Your task to perform on an android device: Add "usb-a to usb-b" to the cart on costco, then select checkout. Image 0: 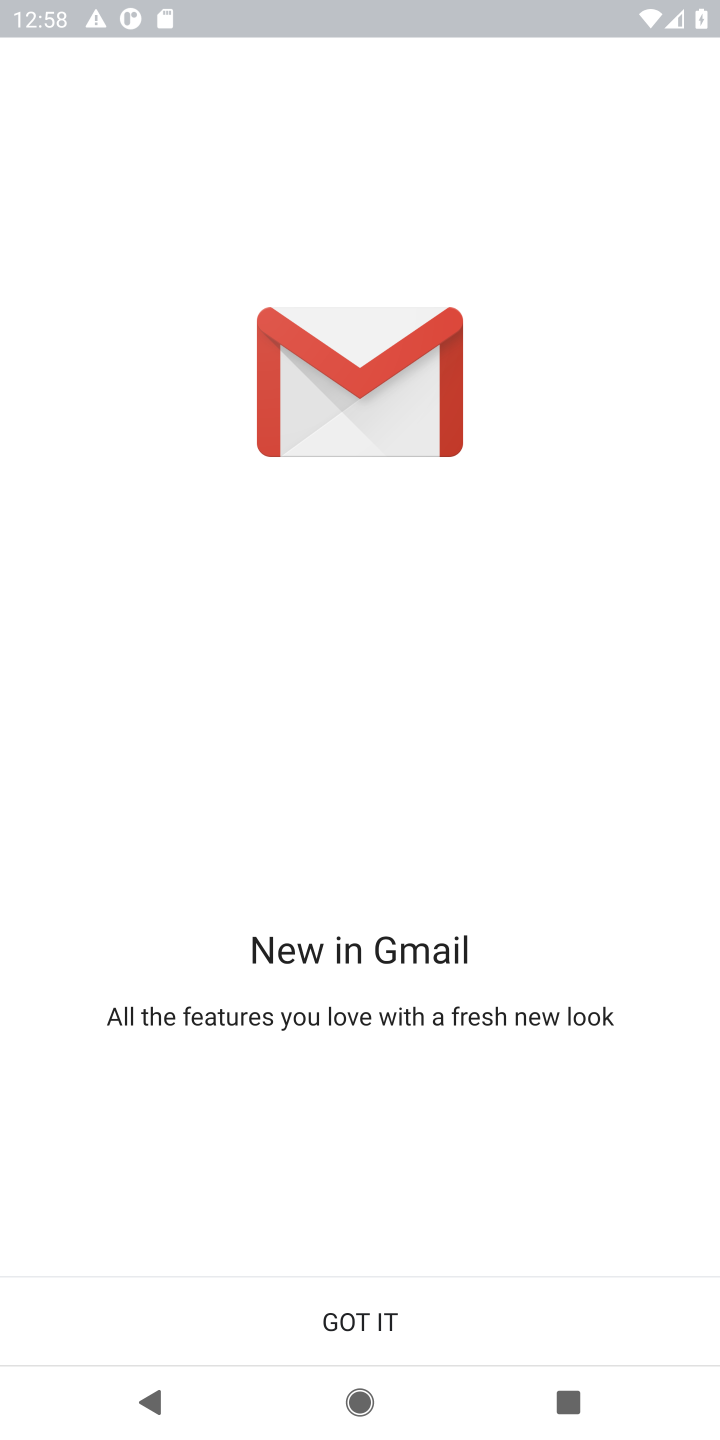
Step 0: press home button
Your task to perform on an android device: Add "usb-a to usb-b" to the cart on costco, then select checkout. Image 1: 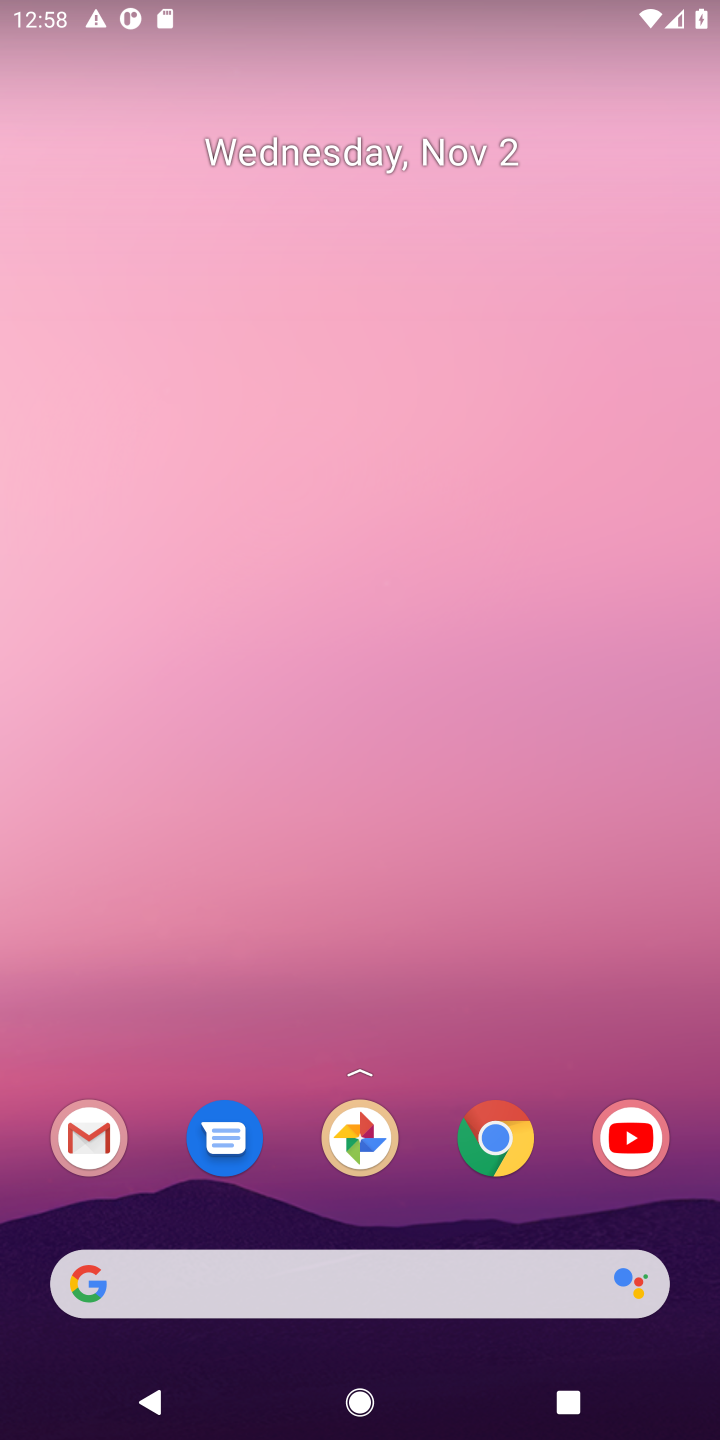
Step 1: click (488, 1119)
Your task to perform on an android device: Add "usb-a to usb-b" to the cart on costco, then select checkout. Image 2: 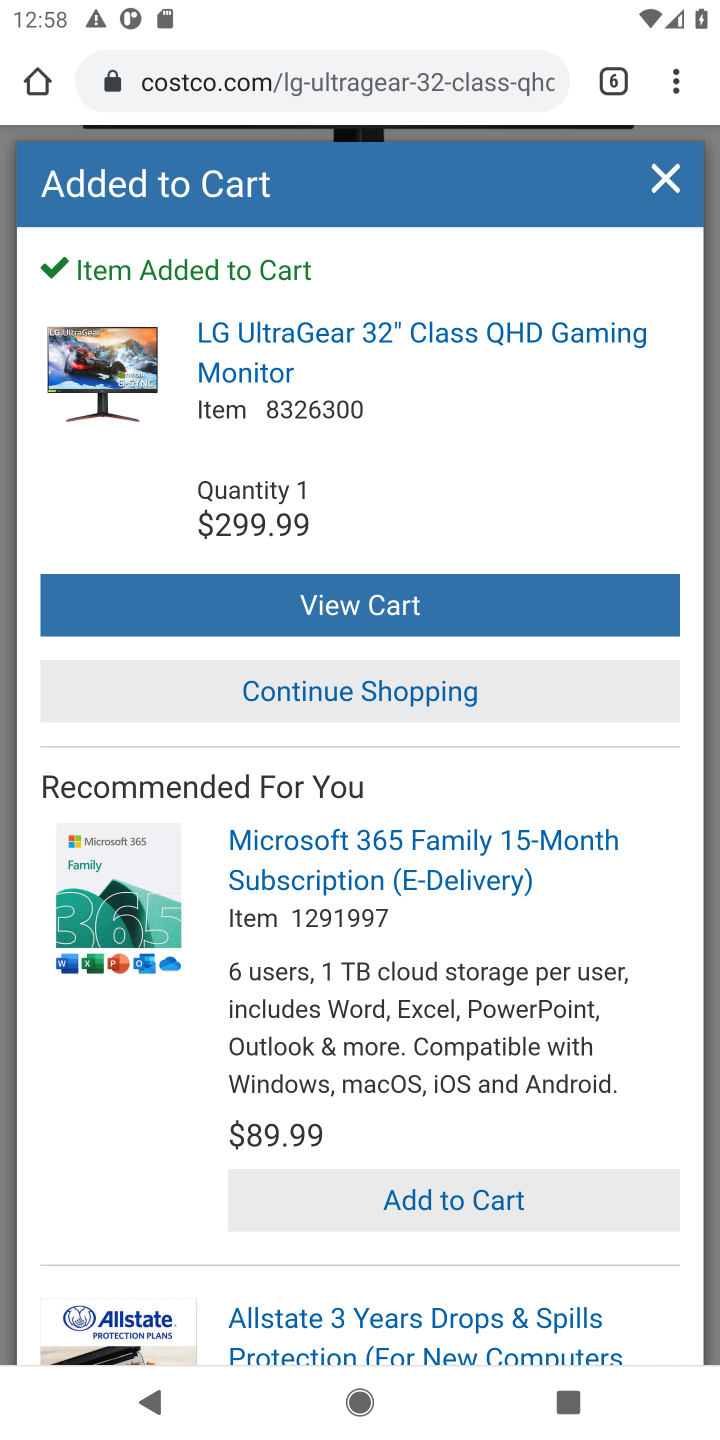
Step 2: click (612, 82)
Your task to perform on an android device: Add "usb-a to usb-b" to the cart on costco, then select checkout. Image 3: 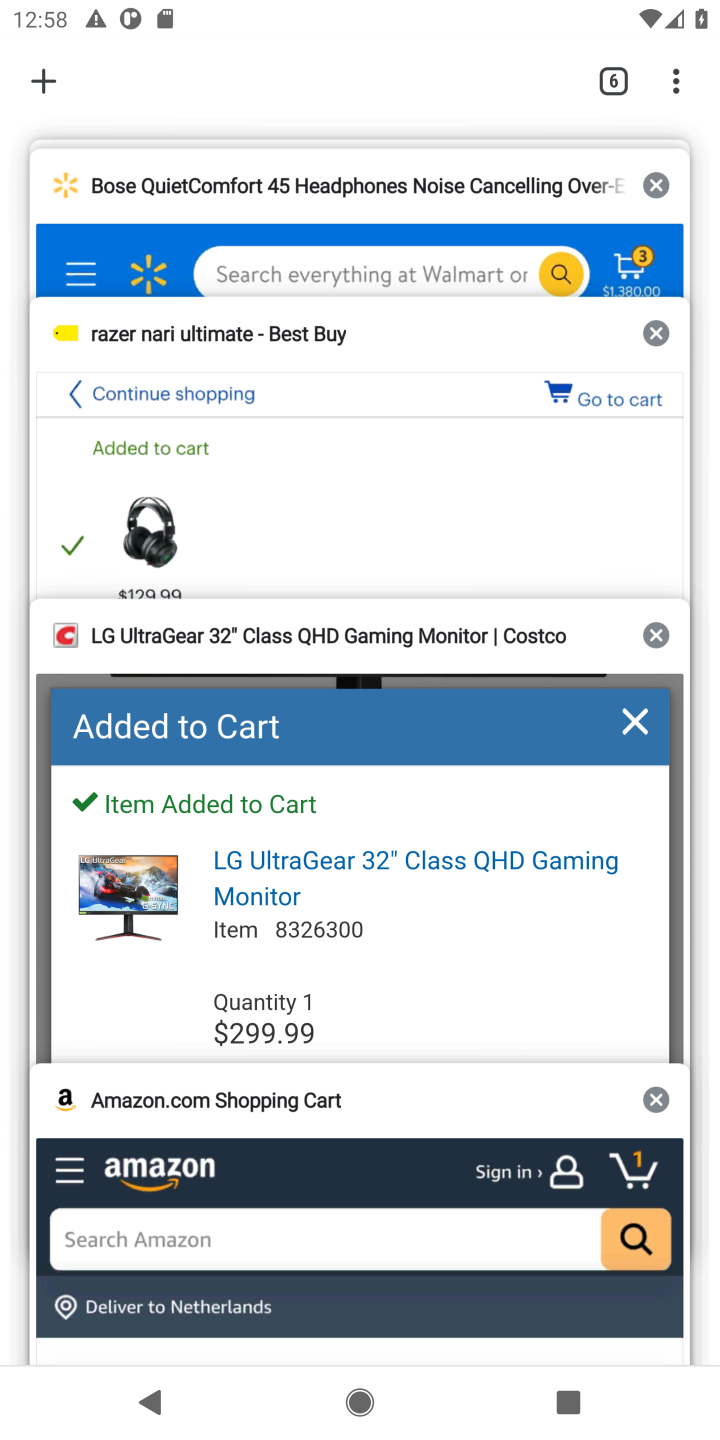
Step 3: drag from (356, 247) to (287, 515)
Your task to perform on an android device: Add "usb-a to usb-b" to the cart on costco, then select checkout. Image 4: 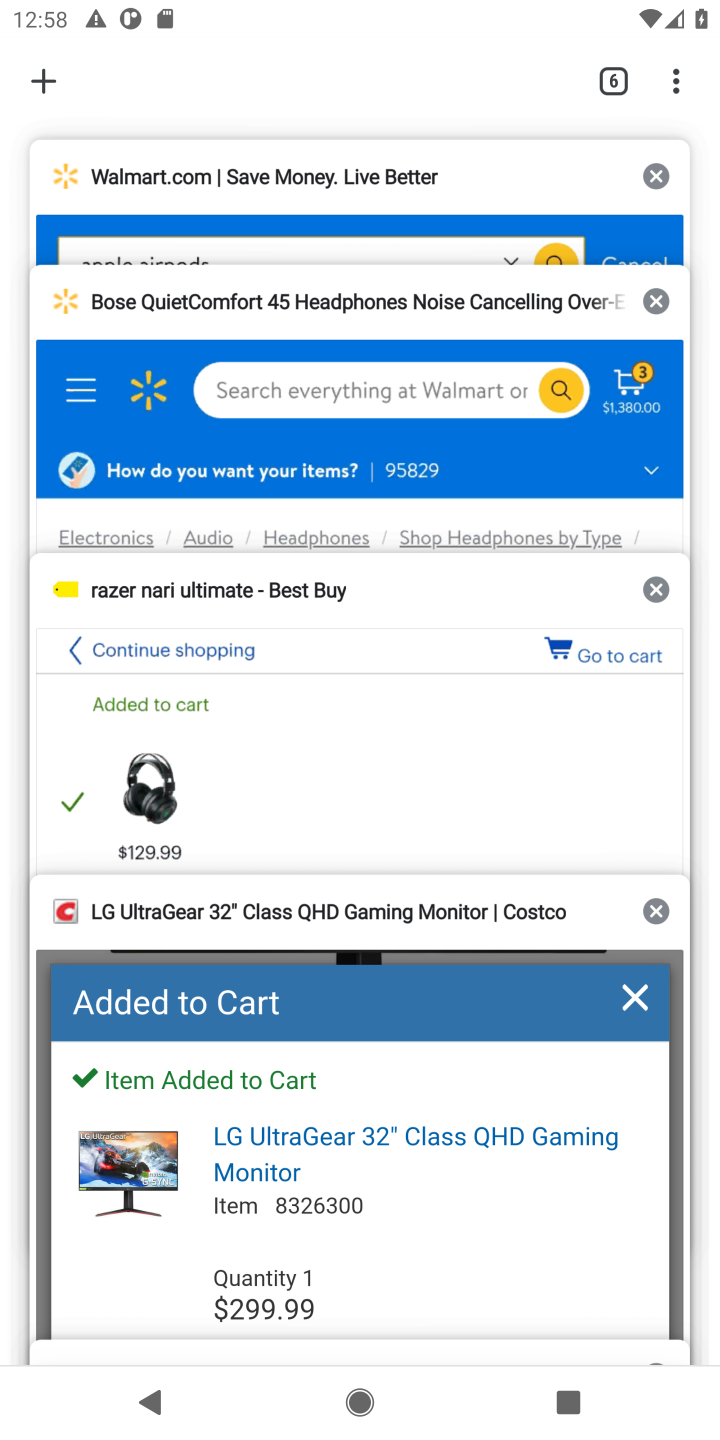
Step 4: click (181, 1028)
Your task to perform on an android device: Add "usb-a to usb-b" to the cart on costco, then select checkout. Image 5: 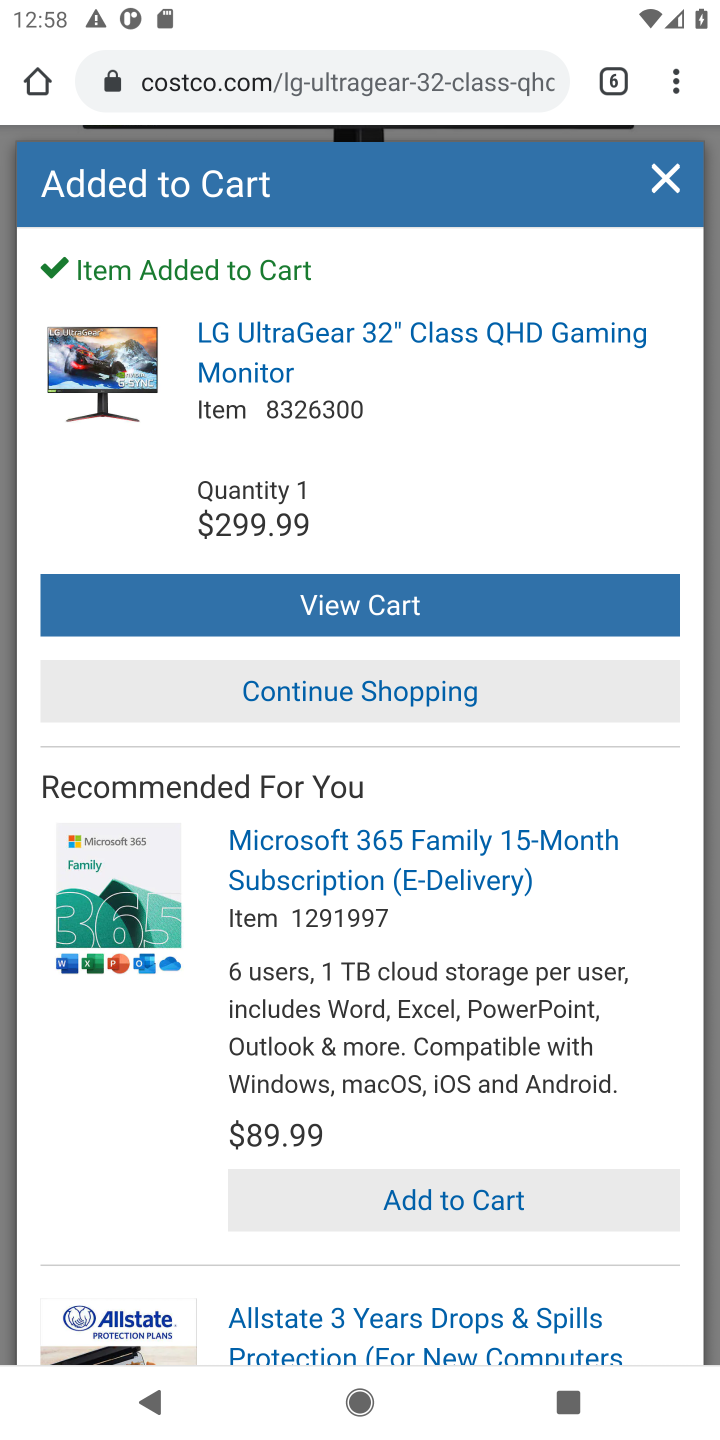
Step 5: click (666, 186)
Your task to perform on an android device: Add "usb-a to usb-b" to the cart on costco, then select checkout. Image 6: 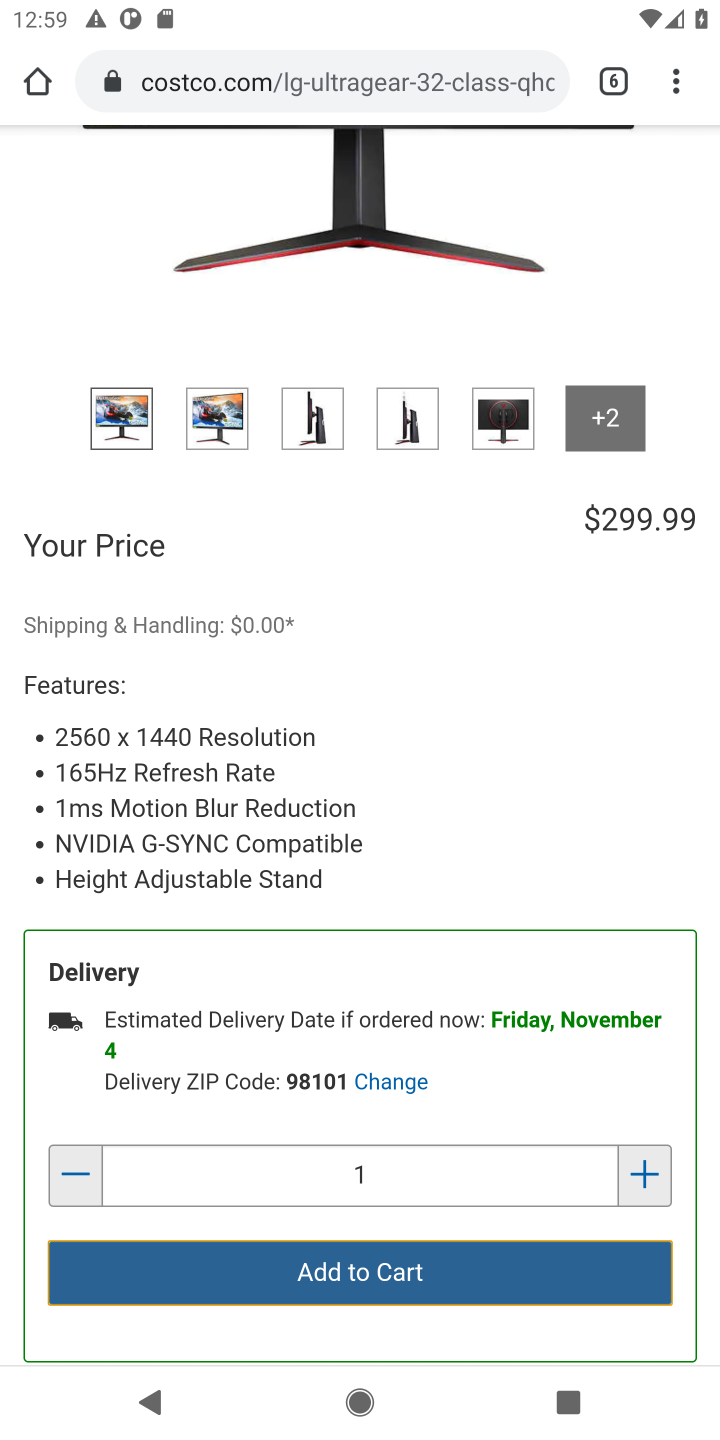
Step 6: drag from (496, 581) to (290, 1429)
Your task to perform on an android device: Add "usb-a to usb-b" to the cart on costco, then select checkout. Image 7: 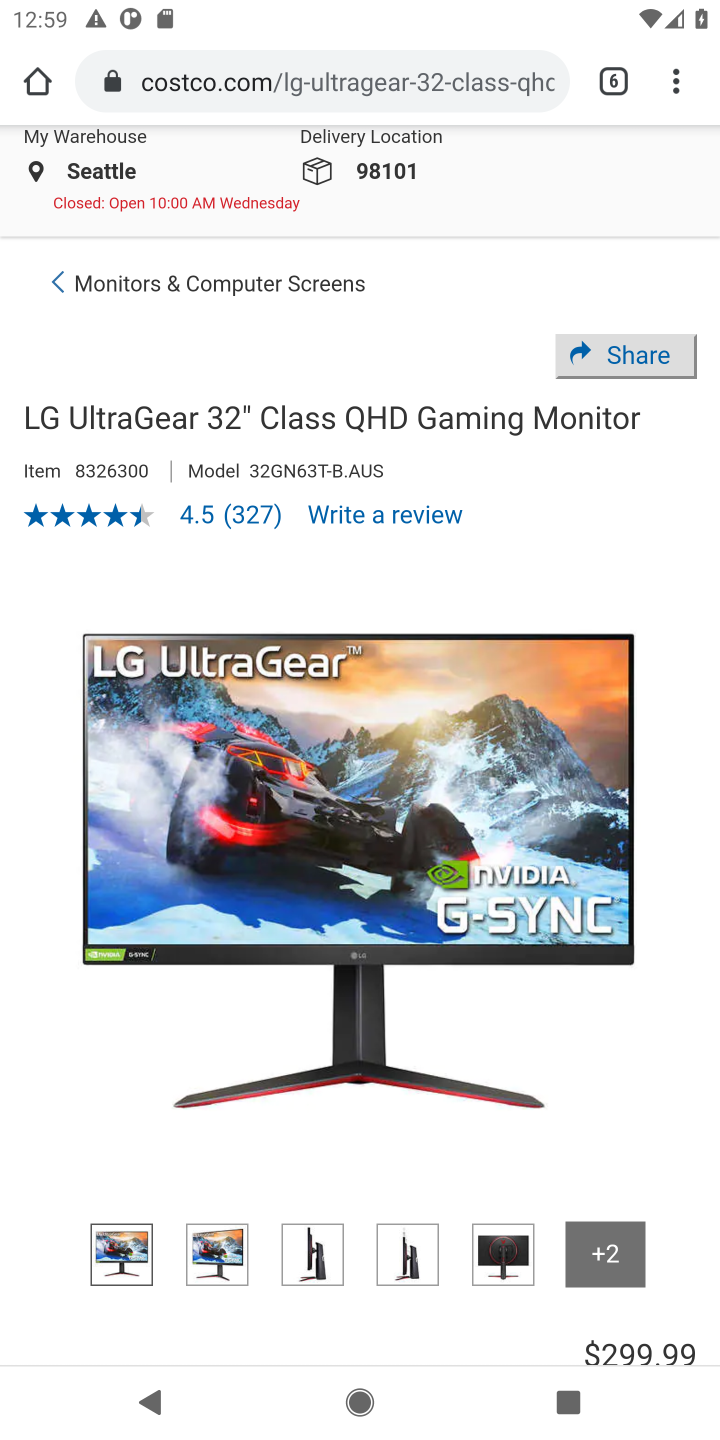
Step 7: drag from (435, 314) to (351, 968)
Your task to perform on an android device: Add "usb-a to usb-b" to the cart on costco, then select checkout. Image 8: 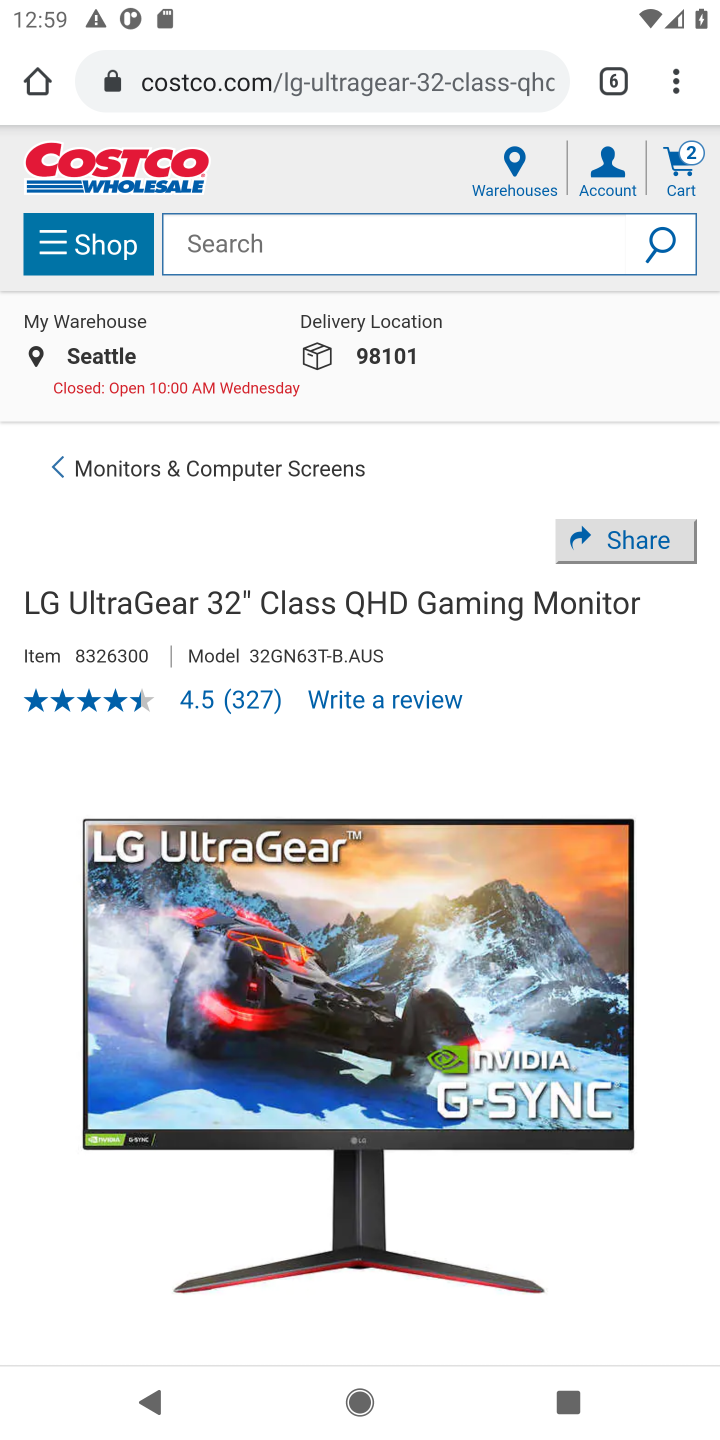
Step 8: click (450, 247)
Your task to perform on an android device: Add "usb-a to usb-b" to the cart on costco, then select checkout. Image 9: 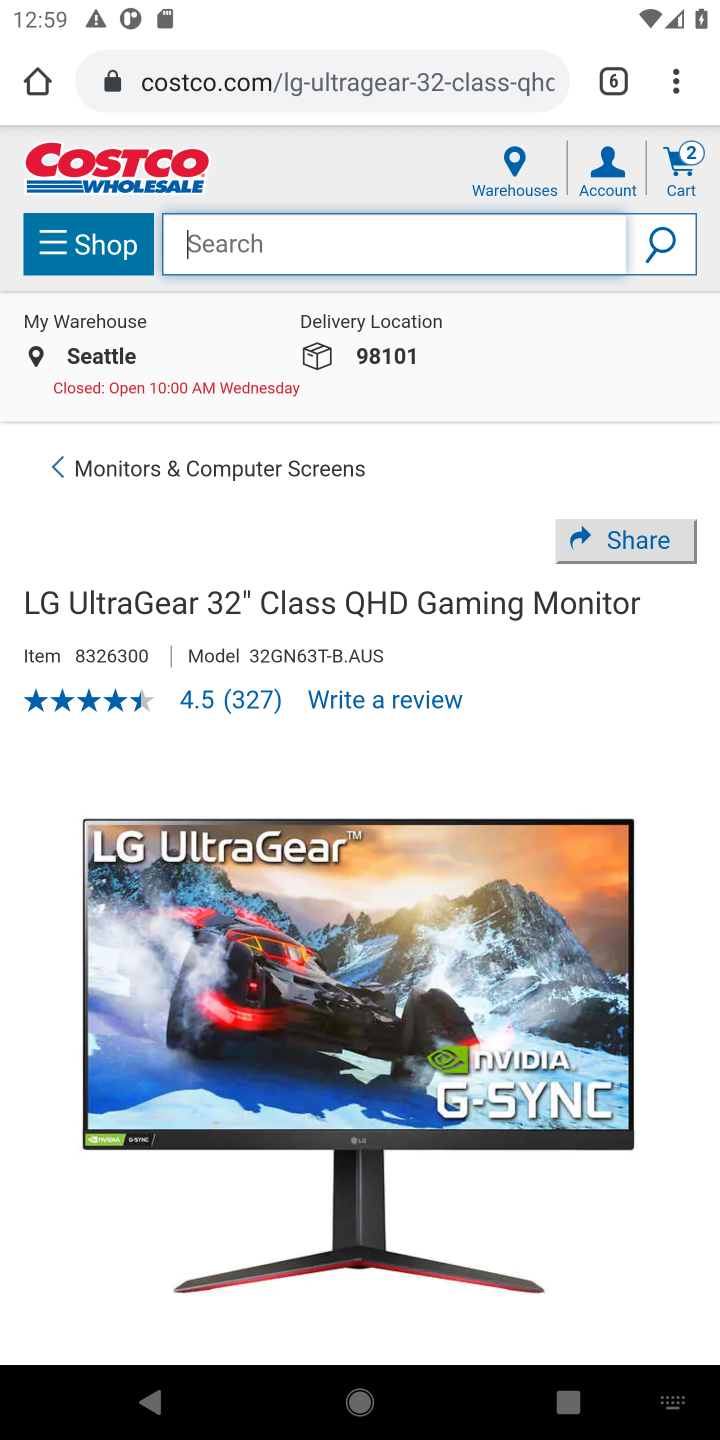
Step 9: type "usb-a to usb-b"
Your task to perform on an android device: Add "usb-a to usb-b" to the cart on costco, then select checkout. Image 10: 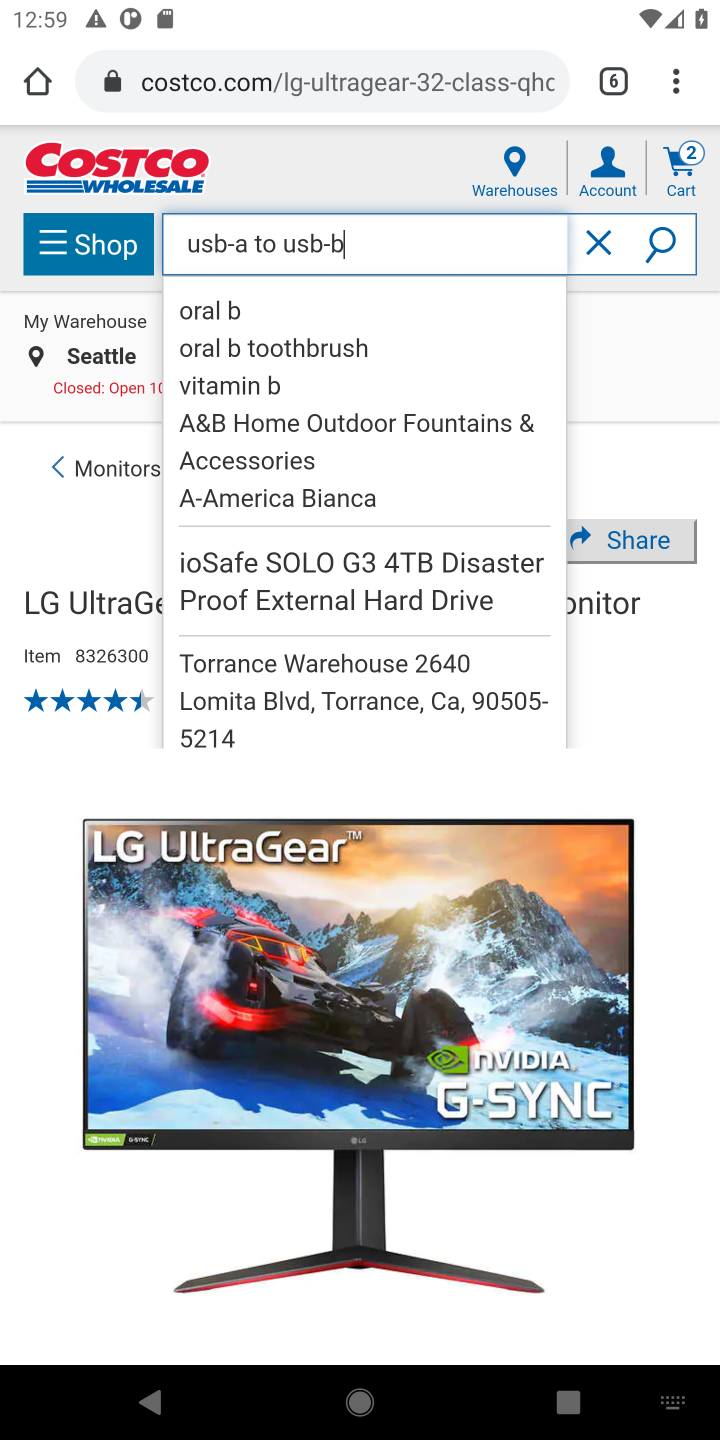
Step 10: click (648, 231)
Your task to perform on an android device: Add "usb-a to usb-b" to the cart on costco, then select checkout. Image 11: 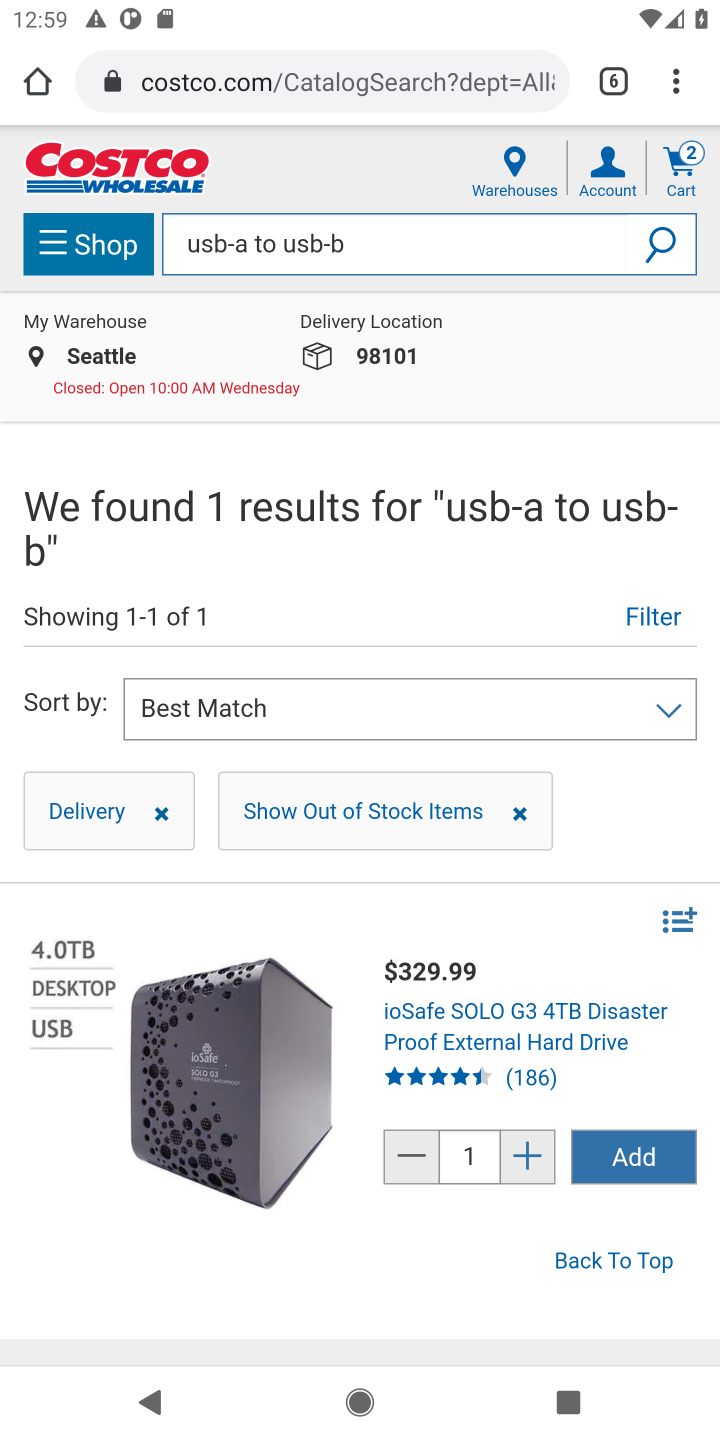
Step 11: drag from (586, 1081) to (619, 233)
Your task to perform on an android device: Add "usb-a to usb-b" to the cart on costco, then select checkout. Image 12: 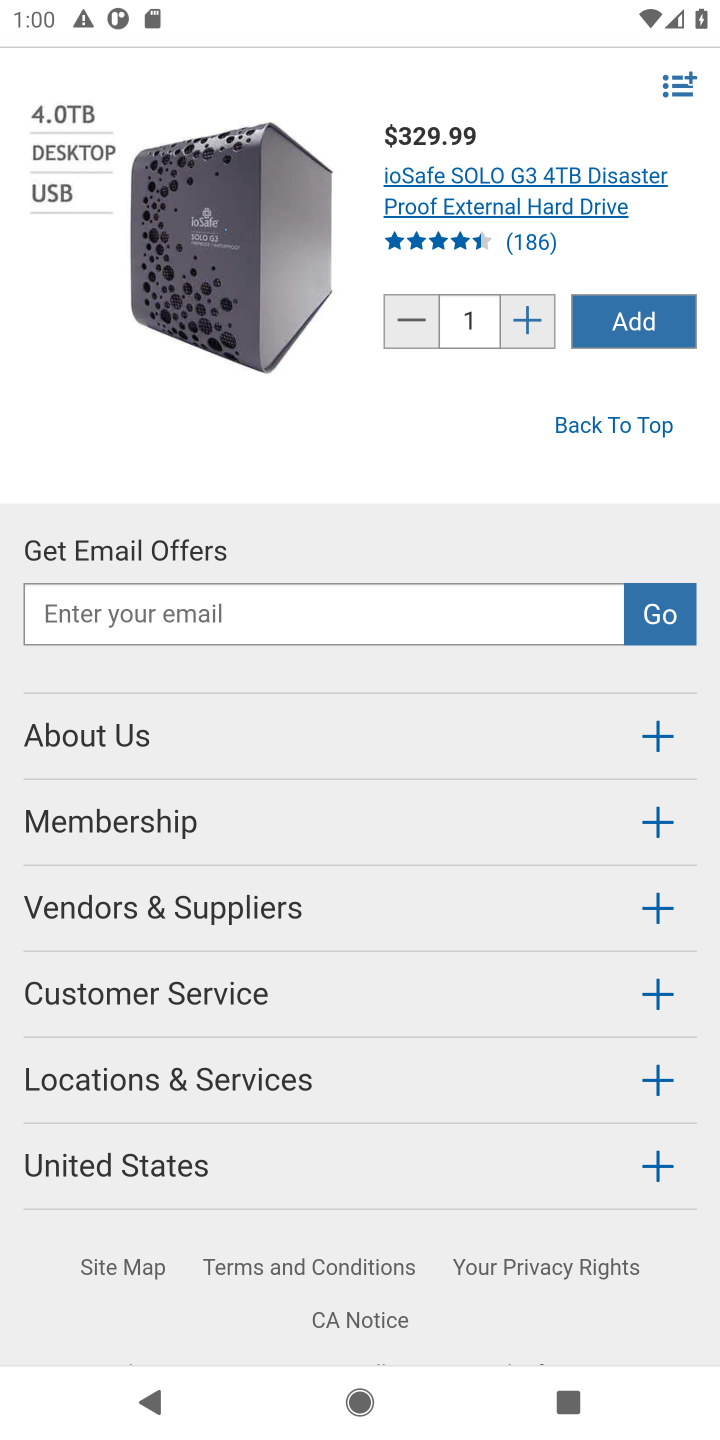
Step 12: drag from (308, 368) to (340, 1399)
Your task to perform on an android device: Add "usb-a to usb-b" to the cart on costco, then select checkout. Image 13: 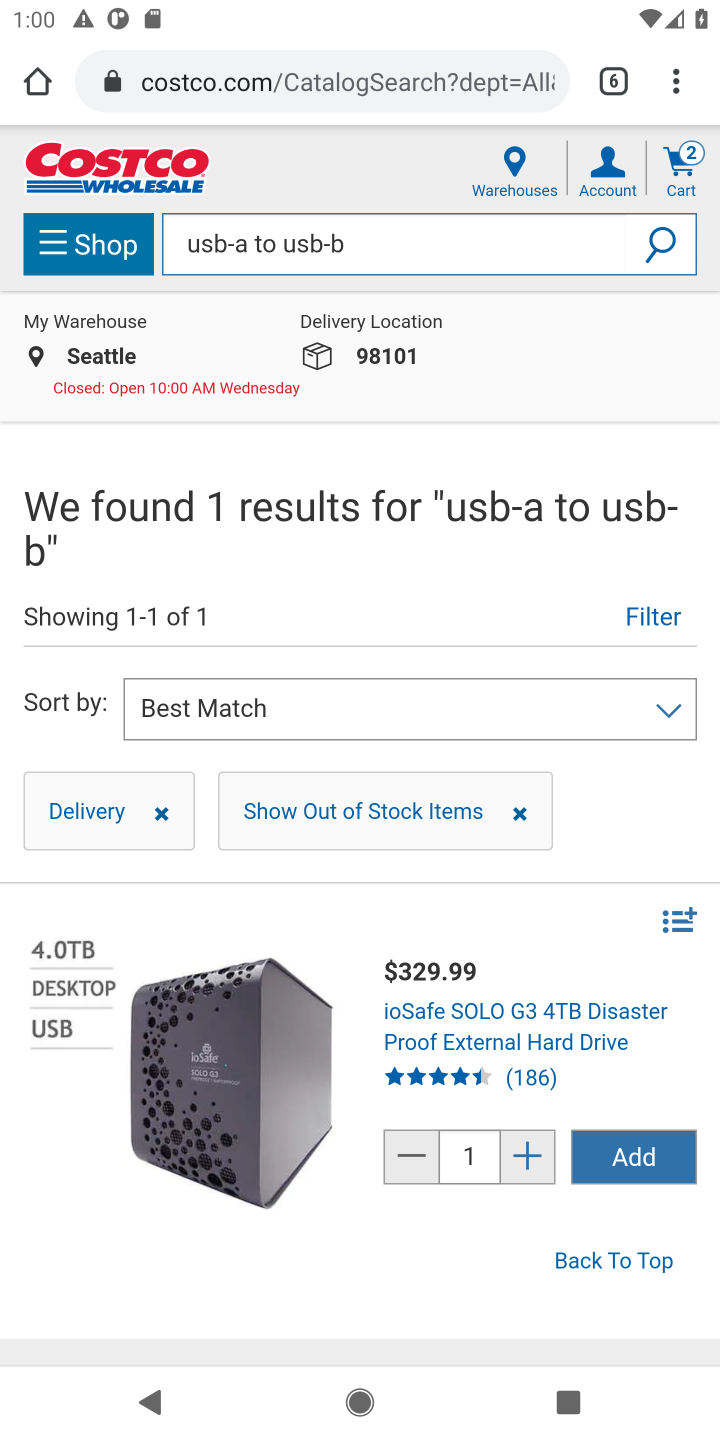
Step 13: drag from (371, 963) to (402, 1352)
Your task to perform on an android device: Add "usb-a to usb-b" to the cart on costco, then select checkout. Image 14: 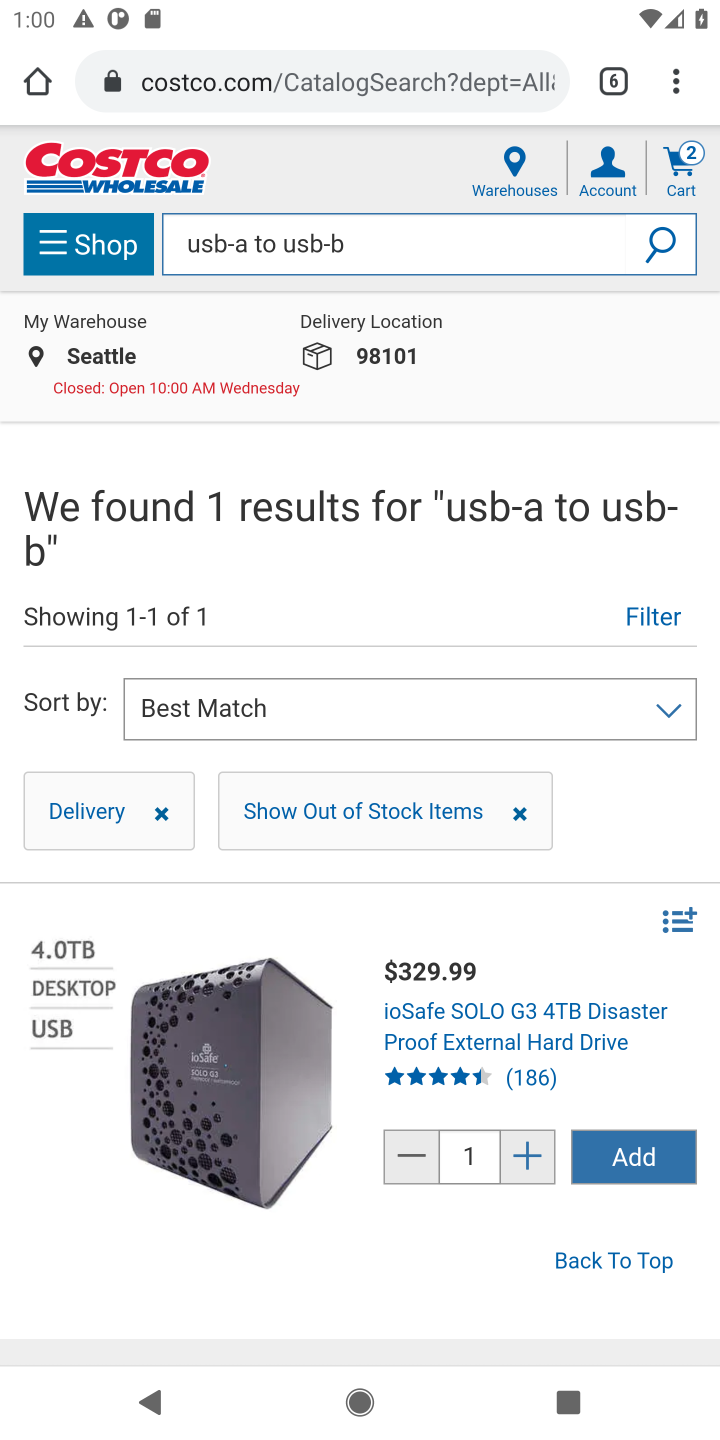
Step 14: click (666, 233)
Your task to perform on an android device: Add "usb-a to usb-b" to the cart on costco, then select checkout. Image 15: 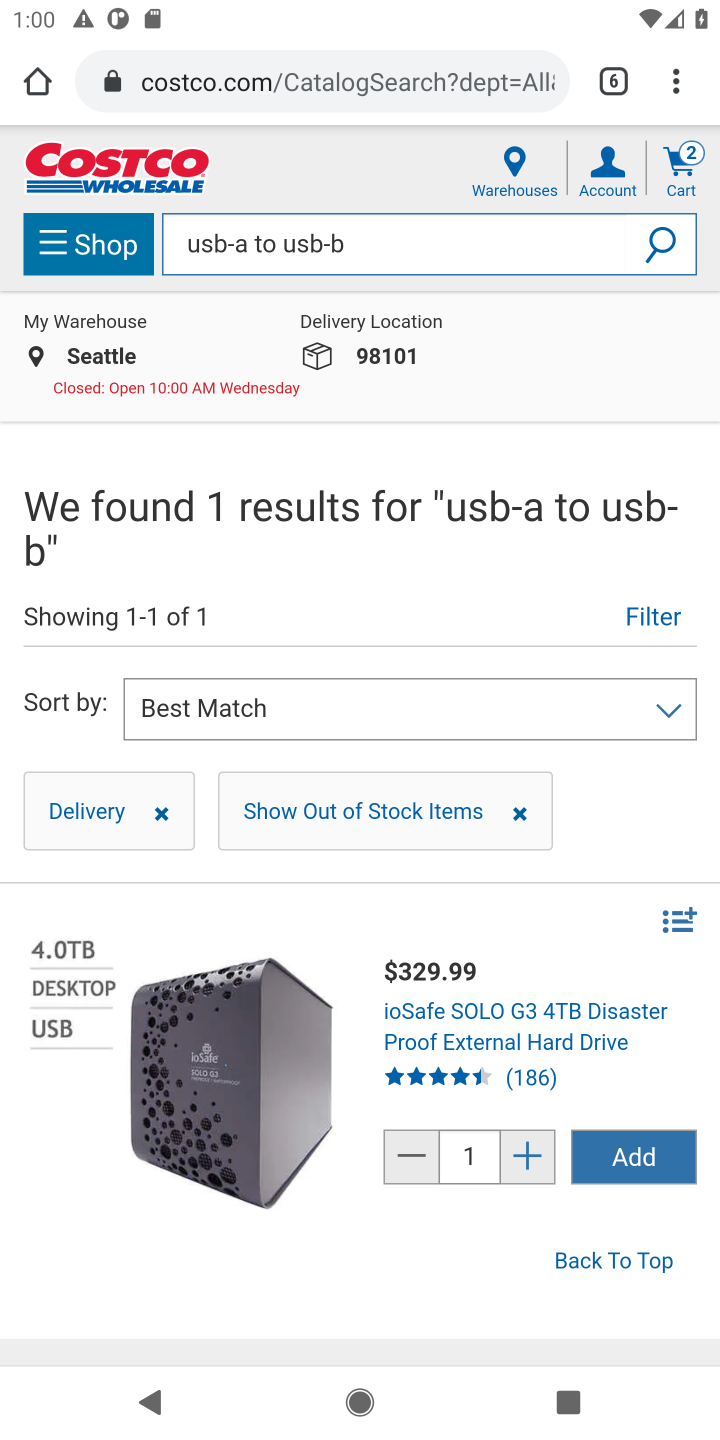
Step 15: click (440, 257)
Your task to perform on an android device: Add "usb-a to usb-b" to the cart on costco, then select checkout. Image 16: 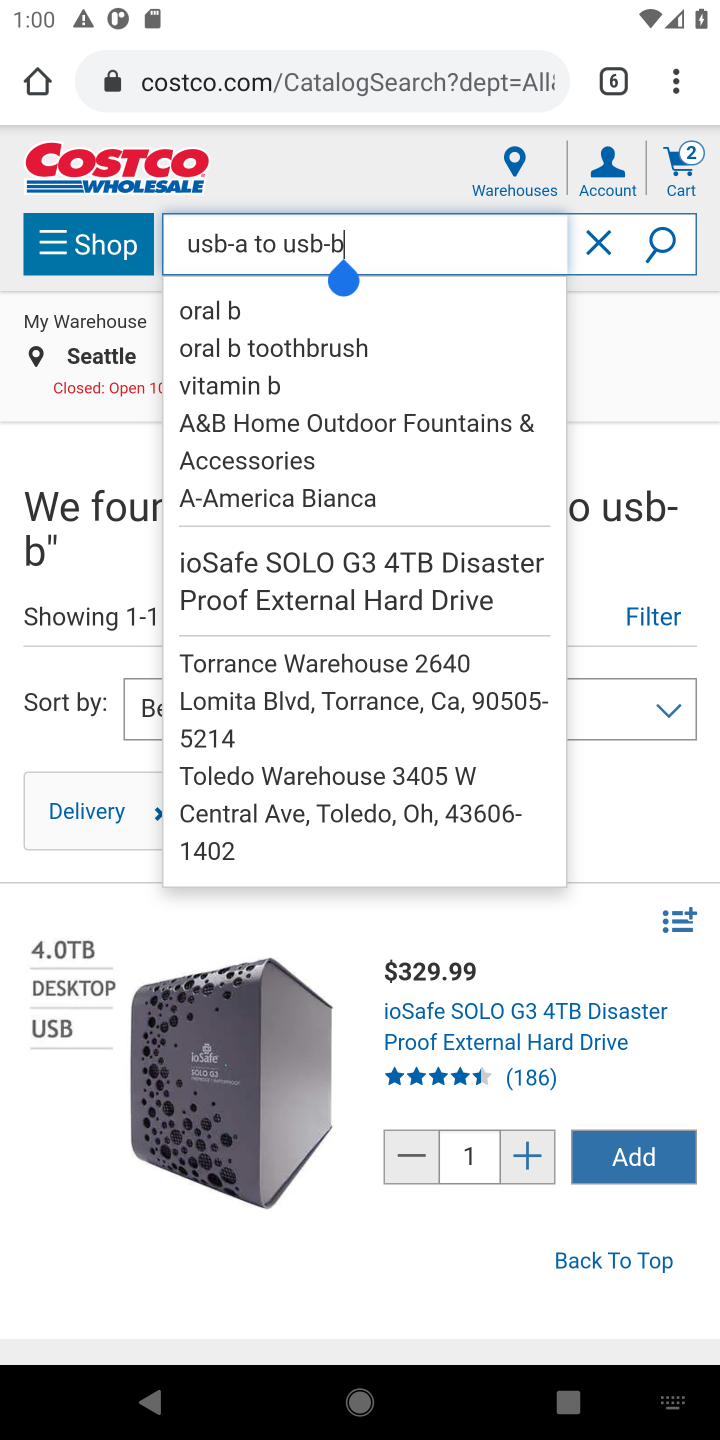
Step 16: click (604, 240)
Your task to perform on an android device: Add "usb-a to usb-b" to the cart on costco, then select checkout. Image 17: 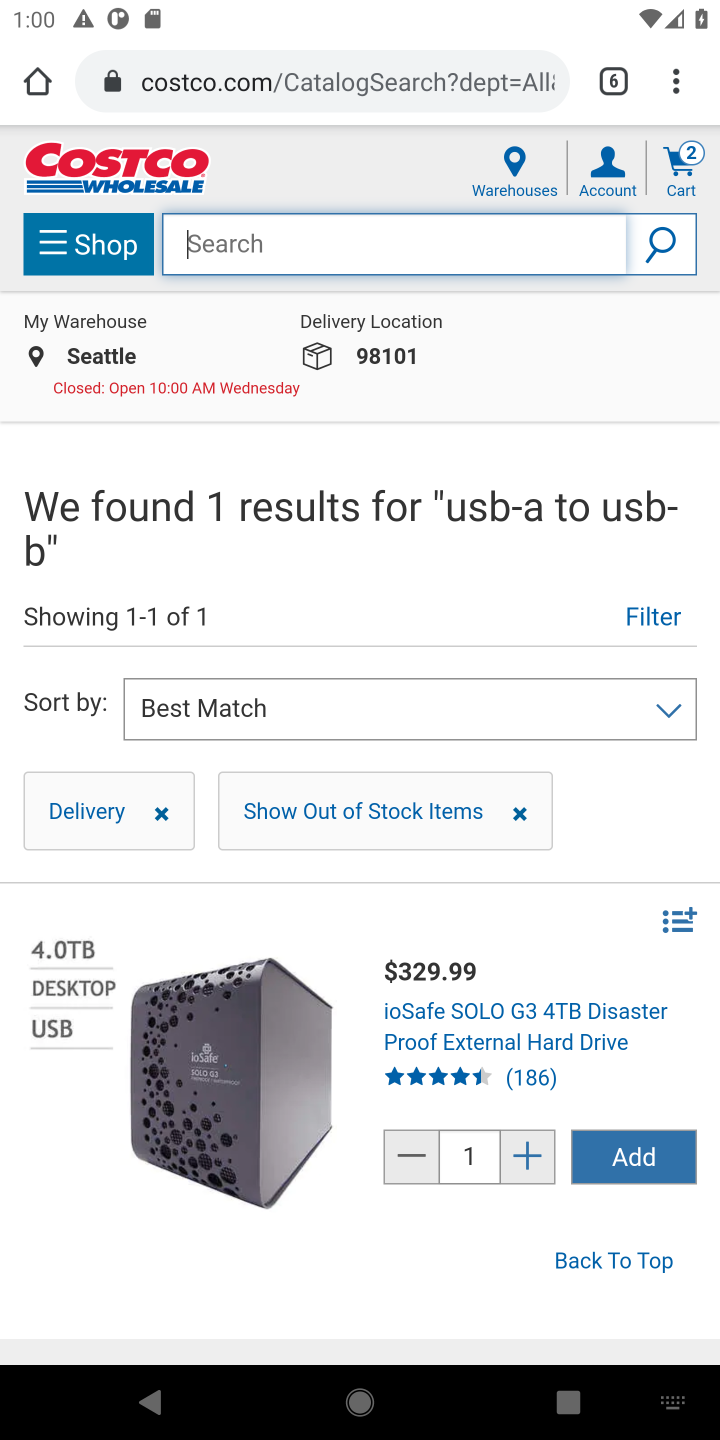
Step 17: type "usb-a "
Your task to perform on an android device: Add "usb-a to usb-b" to the cart on costco, then select checkout. Image 18: 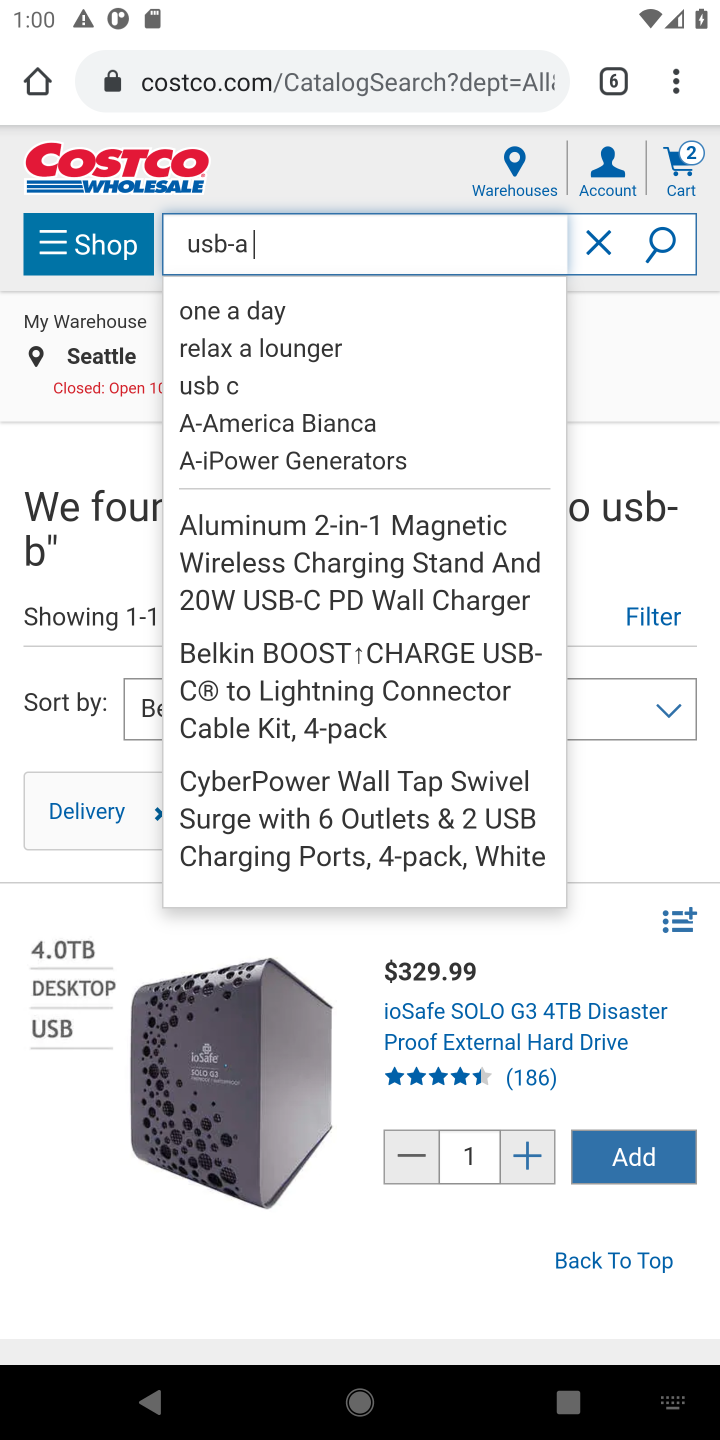
Step 18: click (660, 236)
Your task to perform on an android device: Add "usb-a to usb-b" to the cart on costco, then select checkout. Image 19: 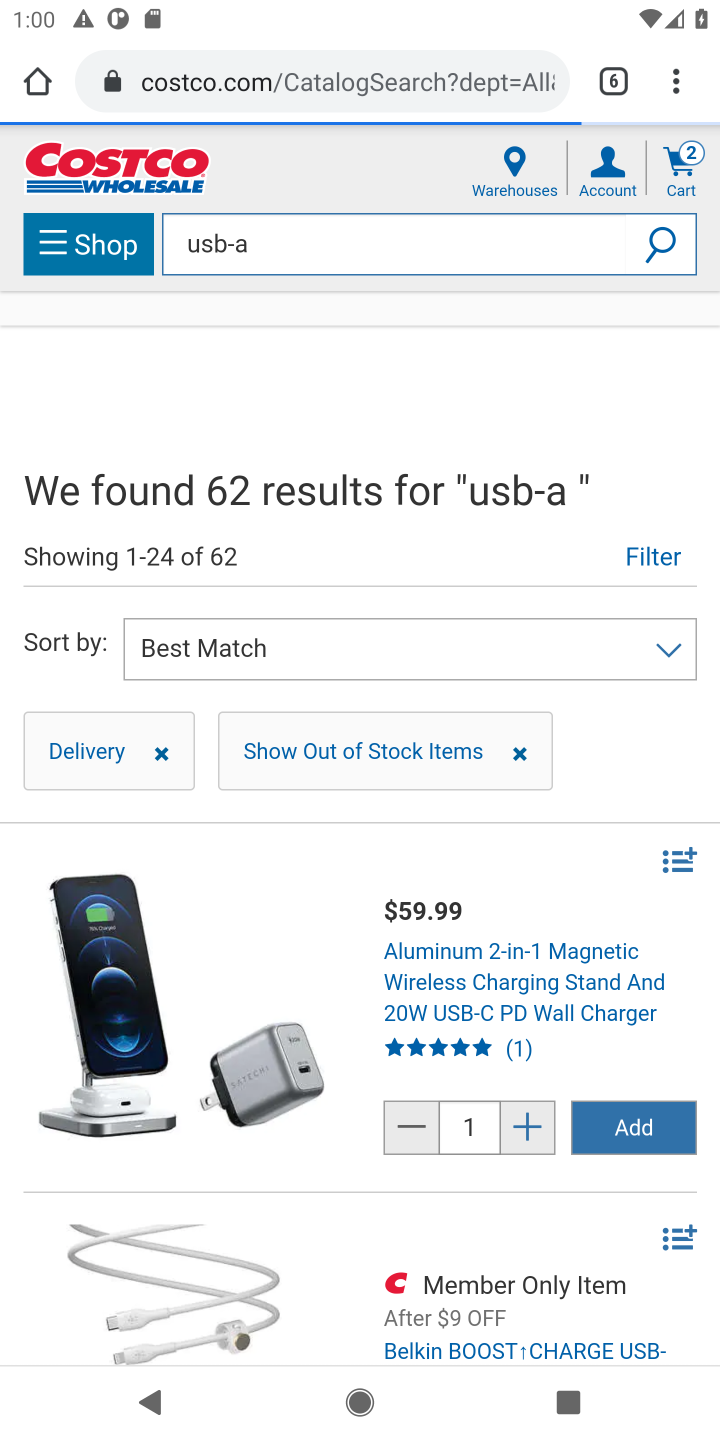
Step 19: click (641, 1121)
Your task to perform on an android device: Add "usb-a to usb-b" to the cart on costco, then select checkout. Image 20: 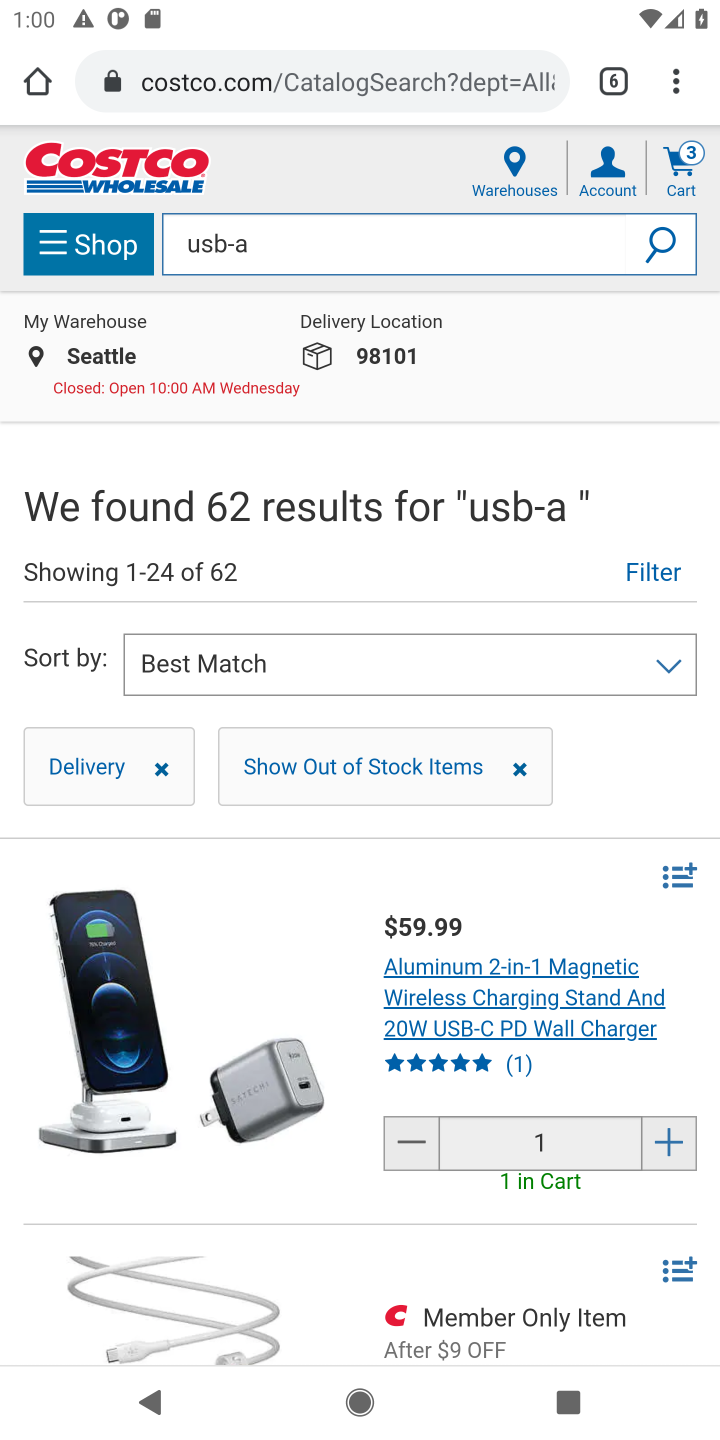
Step 20: click (689, 166)
Your task to perform on an android device: Add "usb-a to usb-b" to the cart on costco, then select checkout. Image 21: 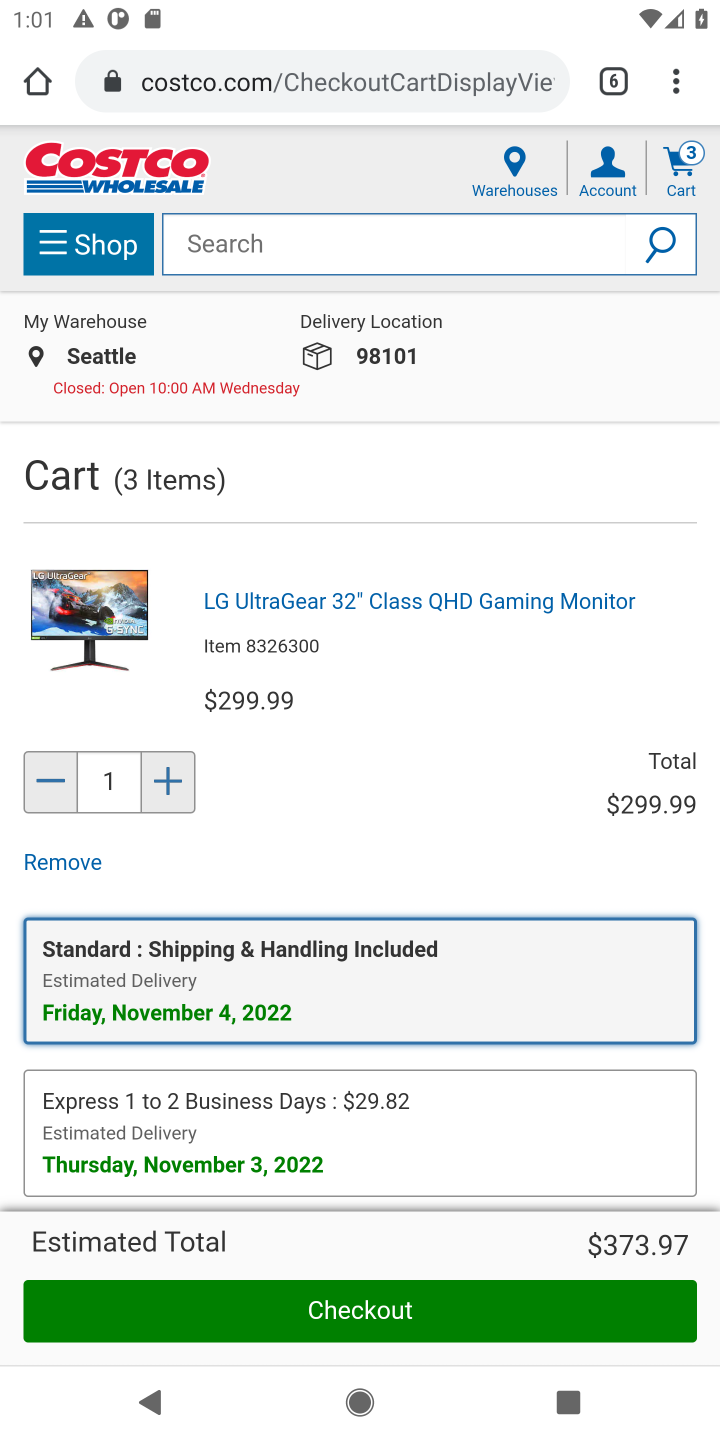
Step 21: click (394, 1315)
Your task to perform on an android device: Add "usb-a to usb-b" to the cart on costco, then select checkout. Image 22: 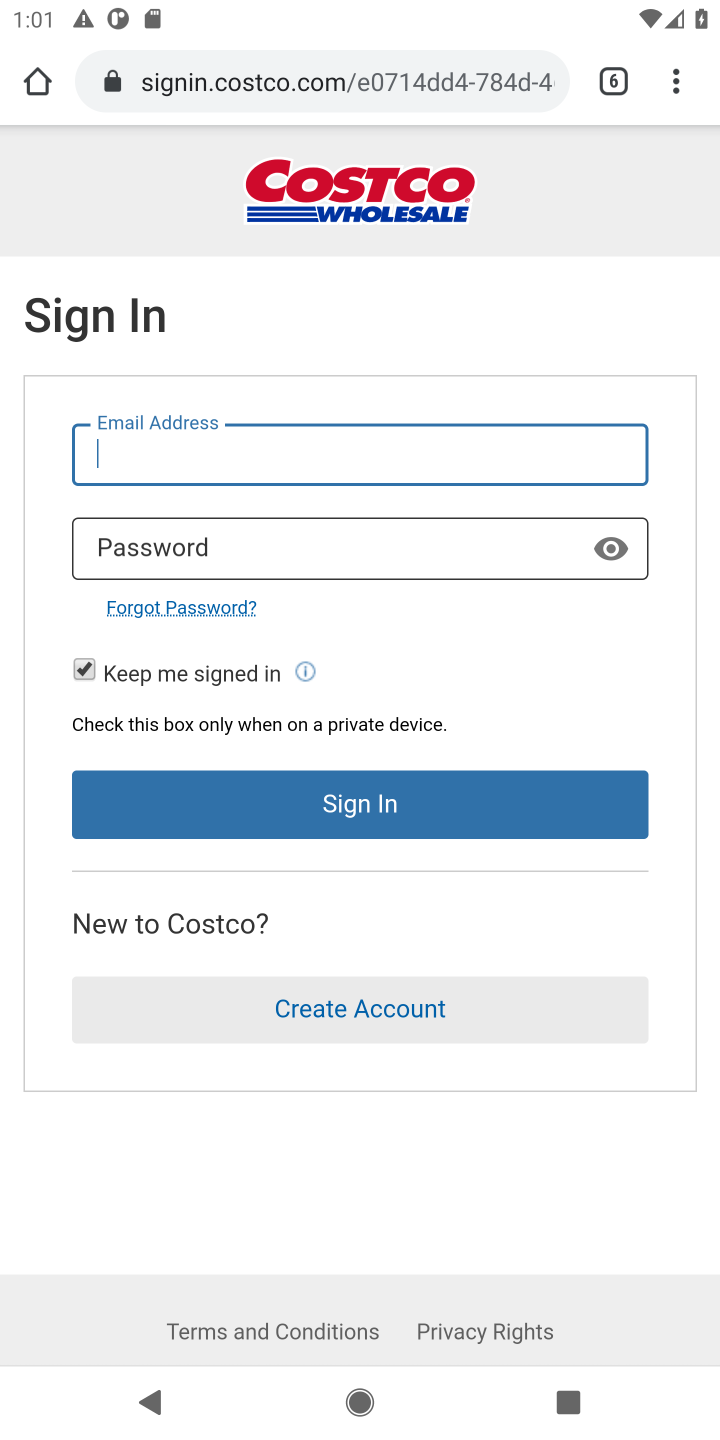
Step 22: task complete